Your task to perform on an android device: turn on improve location accuracy Image 0: 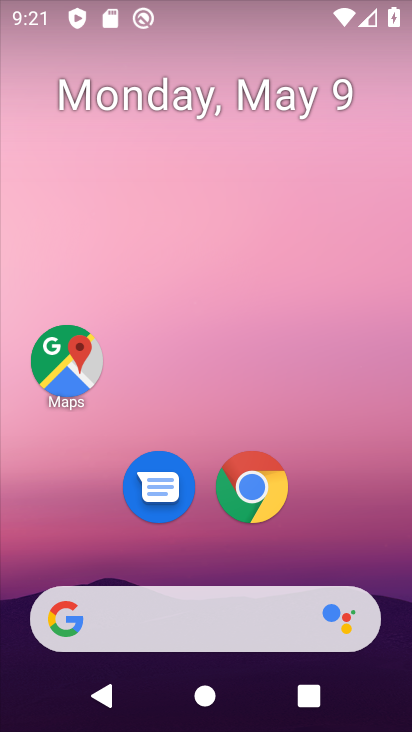
Step 0: task complete